Your task to perform on an android device: toggle data saver in the chrome app Image 0: 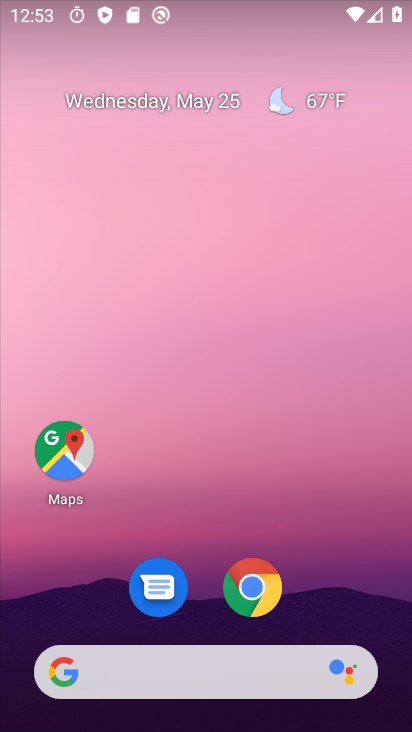
Step 0: click (252, 583)
Your task to perform on an android device: toggle data saver in the chrome app Image 1: 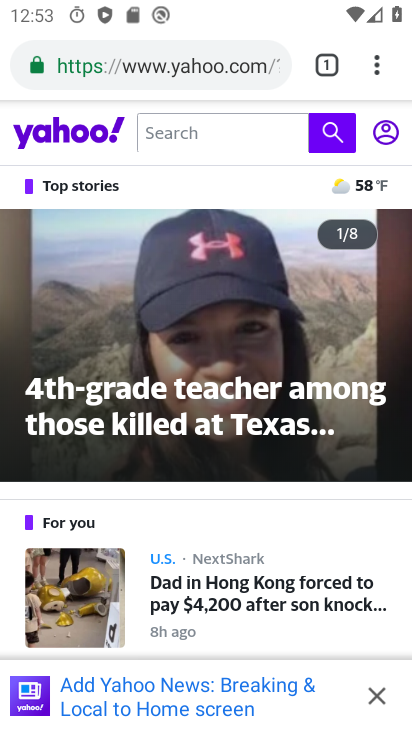
Step 1: click (376, 71)
Your task to perform on an android device: toggle data saver in the chrome app Image 2: 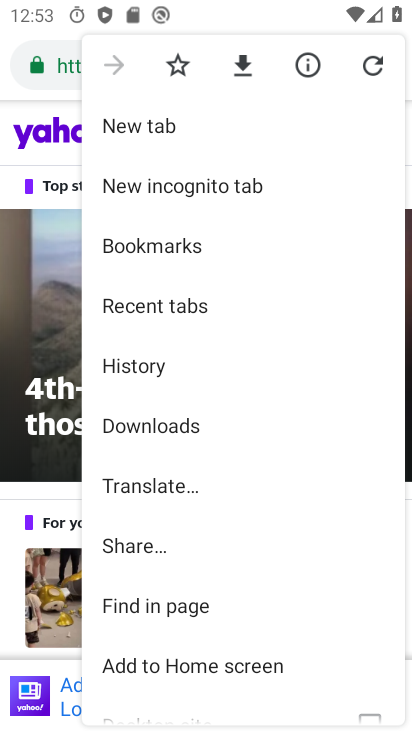
Step 2: drag from (171, 622) to (202, 226)
Your task to perform on an android device: toggle data saver in the chrome app Image 3: 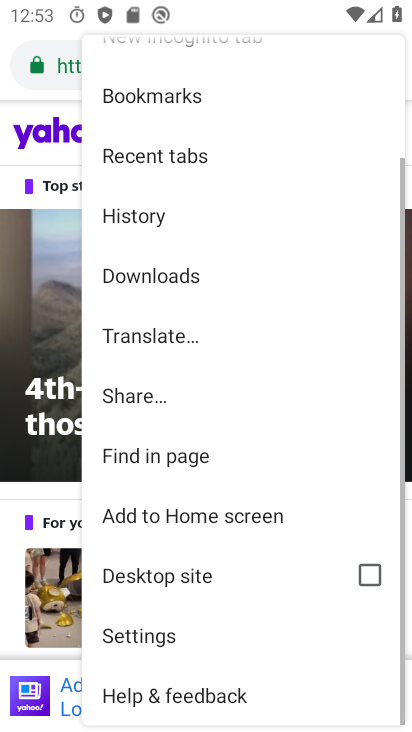
Step 3: click (141, 639)
Your task to perform on an android device: toggle data saver in the chrome app Image 4: 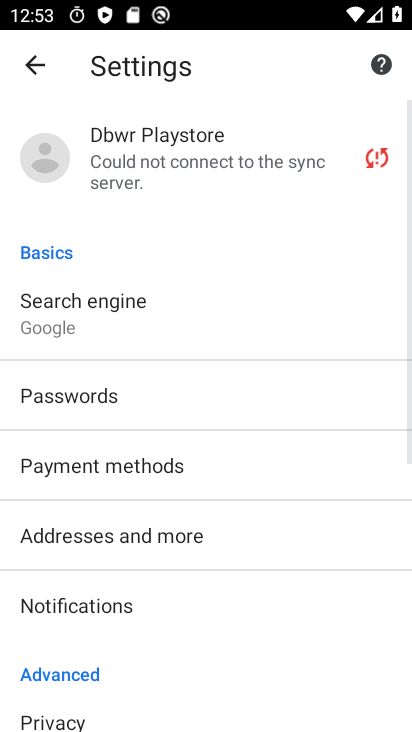
Step 4: drag from (121, 641) to (155, 315)
Your task to perform on an android device: toggle data saver in the chrome app Image 5: 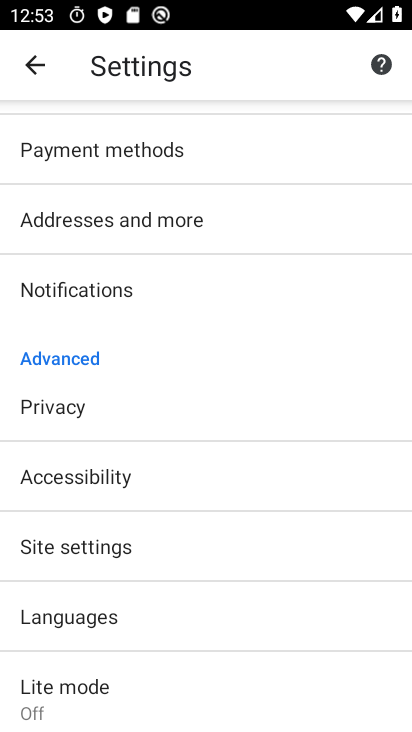
Step 5: drag from (70, 661) to (98, 382)
Your task to perform on an android device: toggle data saver in the chrome app Image 6: 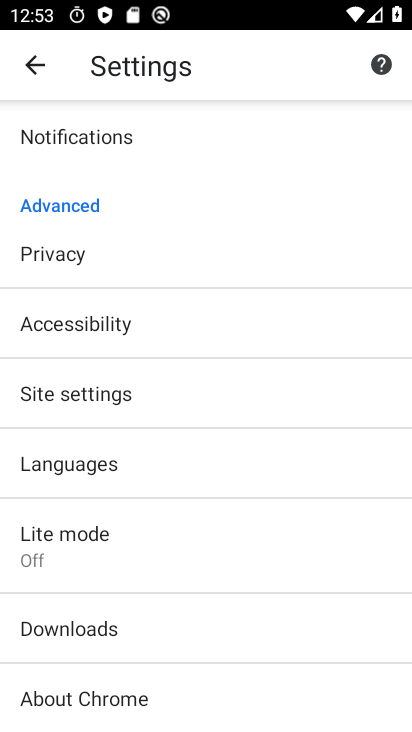
Step 6: click (89, 524)
Your task to perform on an android device: toggle data saver in the chrome app Image 7: 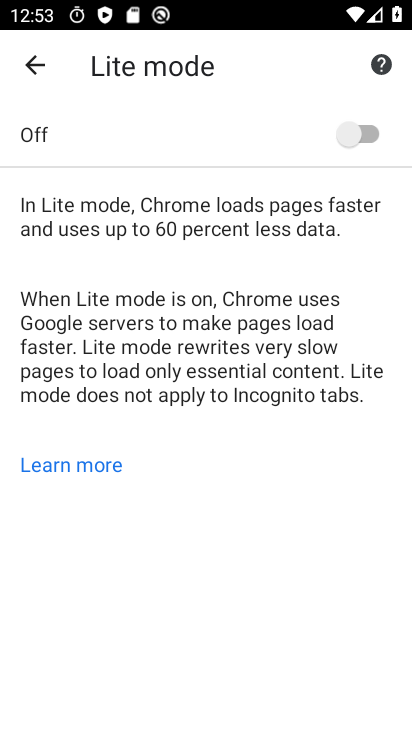
Step 7: click (369, 135)
Your task to perform on an android device: toggle data saver in the chrome app Image 8: 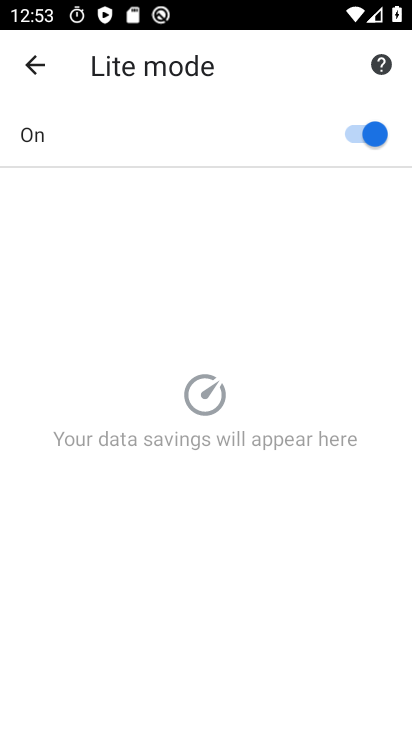
Step 8: task complete